Your task to perform on an android device: turn pop-ups off in chrome Image 0: 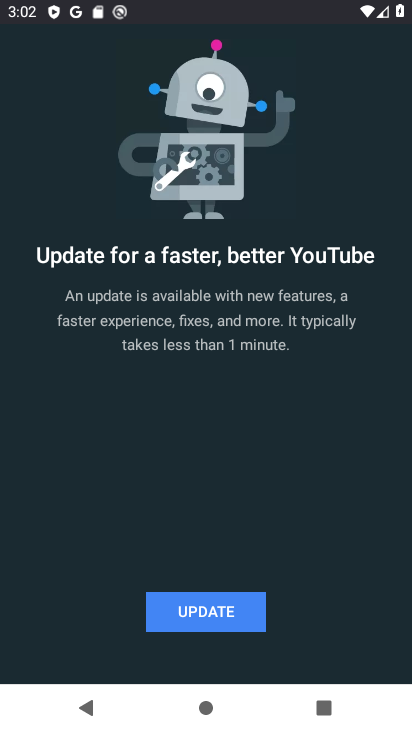
Step 0: task complete